Your task to perform on an android device: Open settings on Google Maps Image 0: 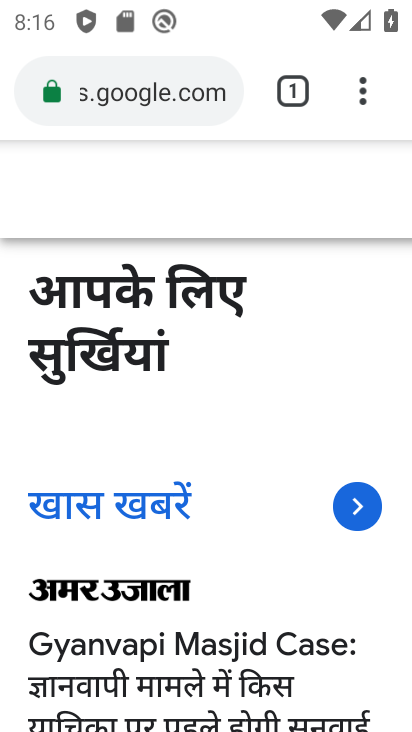
Step 0: press home button
Your task to perform on an android device: Open settings on Google Maps Image 1: 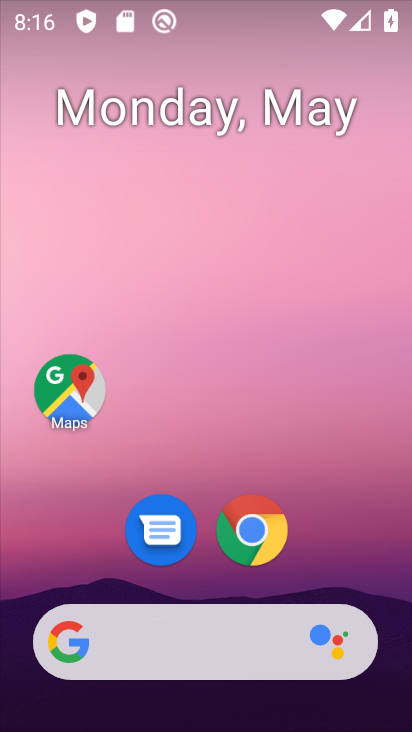
Step 1: click (83, 388)
Your task to perform on an android device: Open settings on Google Maps Image 2: 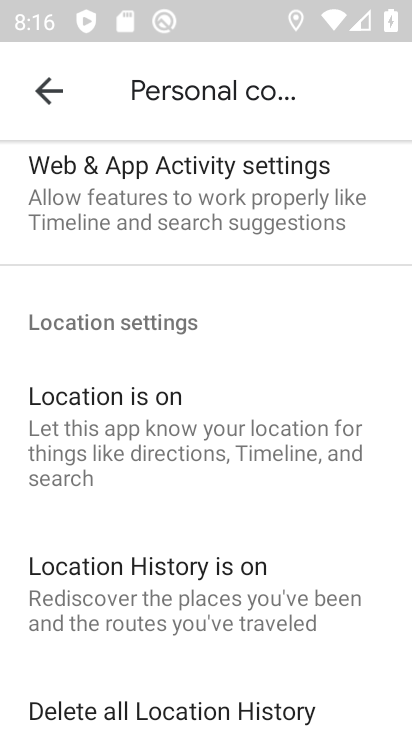
Step 2: click (44, 115)
Your task to perform on an android device: Open settings on Google Maps Image 3: 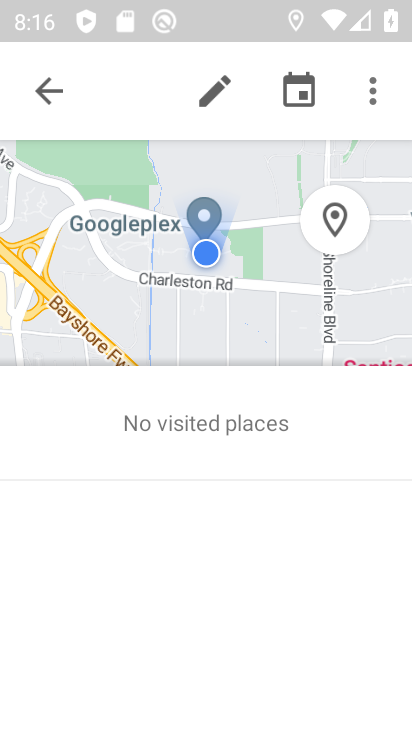
Step 3: click (44, 115)
Your task to perform on an android device: Open settings on Google Maps Image 4: 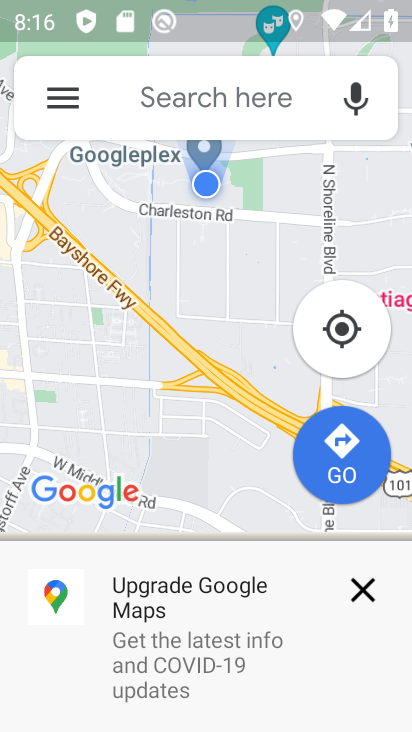
Step 4: click (50, 115)
Your task to perform on an android device: Open settings on Google Maps Image 5: 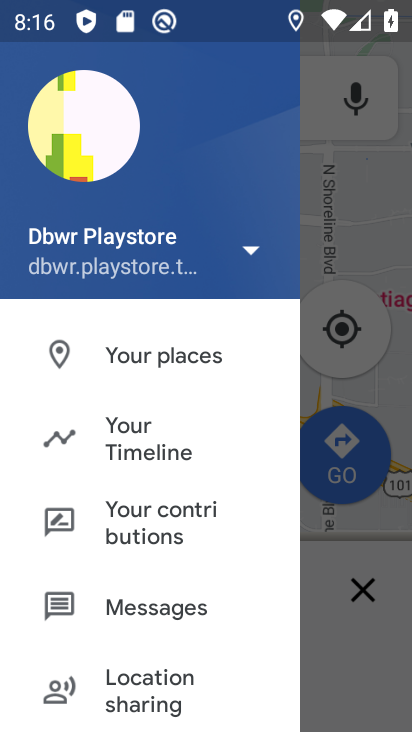
Step 5: drag from (116, 698) to (121, 351)
Your task to perform on an android device: Open settings on Google Maps Image 6: 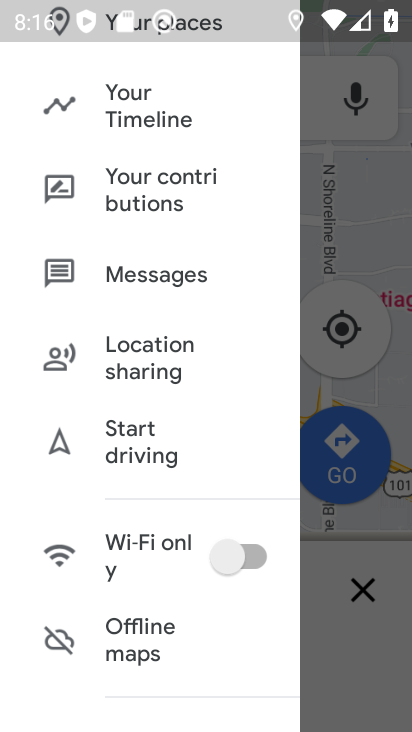
Step 6: drag from (124, 661) to (109, 92)
Your task to perform on an android device: Open settings on Google Maps Image 7: 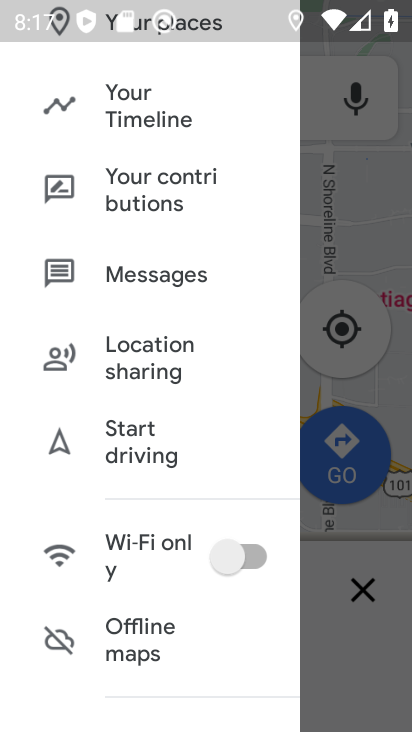
Step 7: drag from (126, 704) to (116, 299)
Your task to perform on an android device: Open settings on Google Maps Image 8: 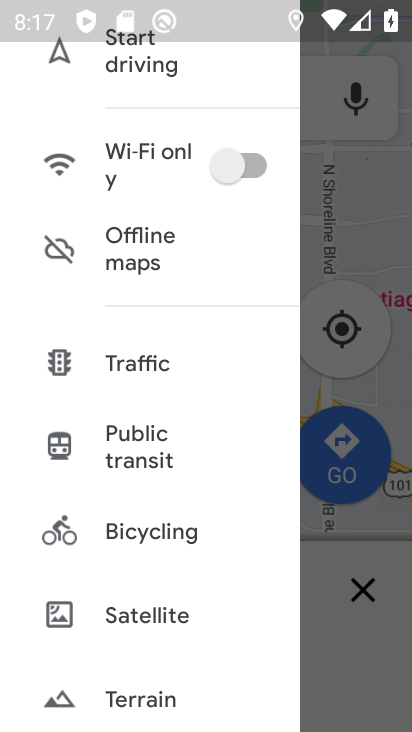
Step 8: drag from (149, 672) to (132, 229)
Your task to perform on an android device: Open settings on Google Maps Image 9: 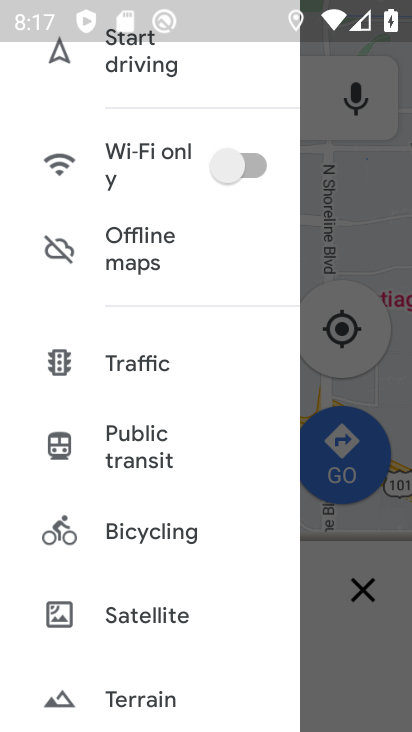
Step 9: drag from (147, 659) to (146, 299)
Your task to perform on an android device: Open settings on Google Maps Image 10: 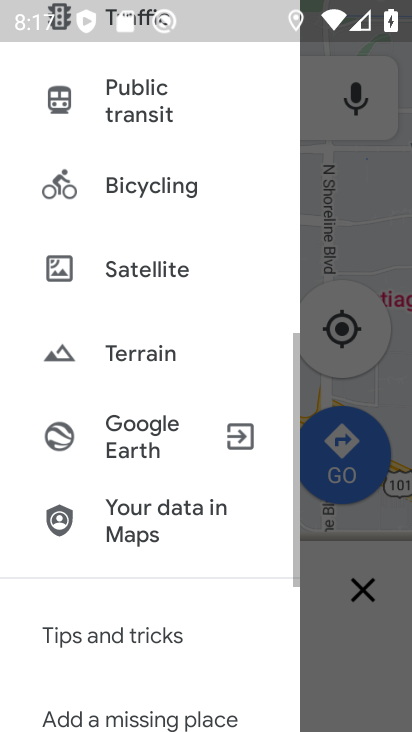
Step 10: drag from (186, 666) to (173, 278)
Your task to perform on an android device: Open settings on Google Maps Image 11: 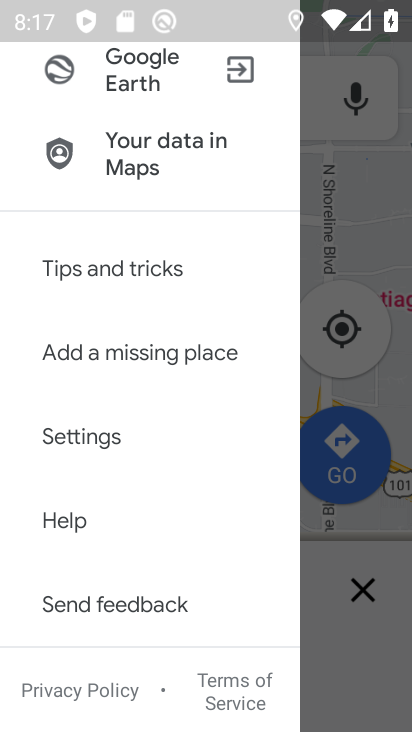
Step 11: click (112, 438)
Your task to perform on an android device: Open settings on Google Maps Image 12: 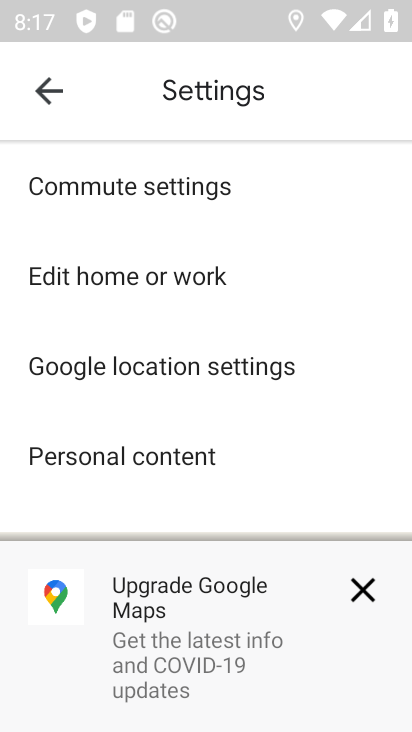
Step 12: click (364, 594)
Your task to perform on an android device: Open settings on Google Maps Image 13: 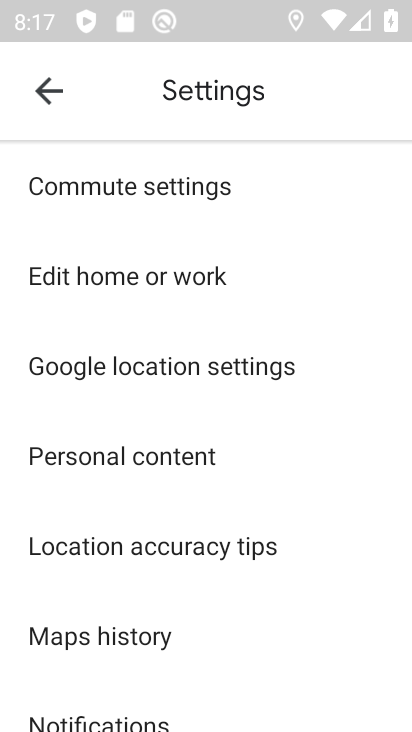
Step 13: task complete